Your task to perform on an android device: Open Yahoo.com Image 0: 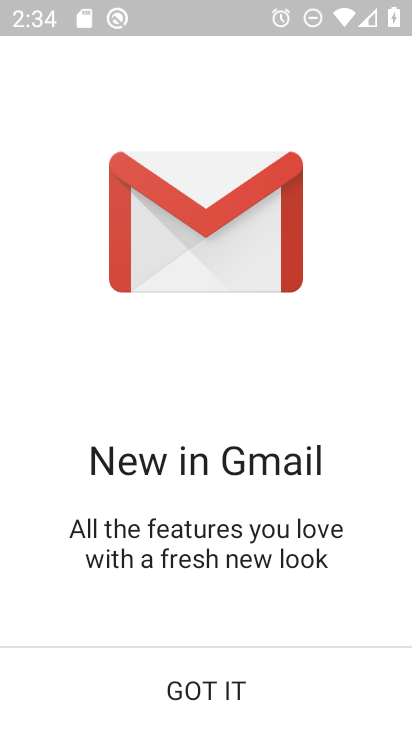
Step 0: press home button
Your task to perform on an android device: Open Yahoo.com Image 1: 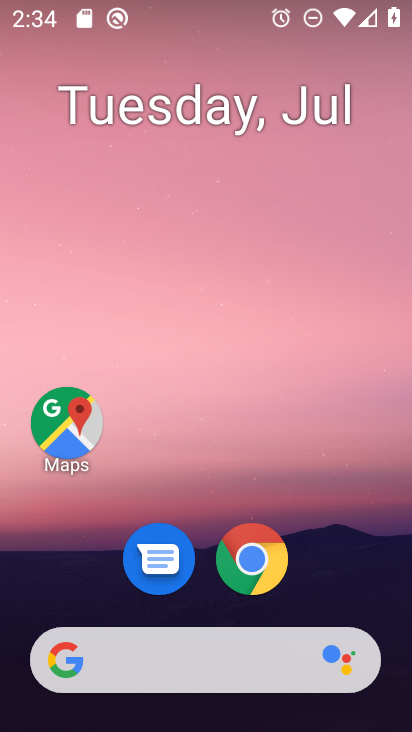
Step 1: drag from (373, 580) to (395, 65)
Your task to perform on an android device: Open Yahoo.com Image 2: 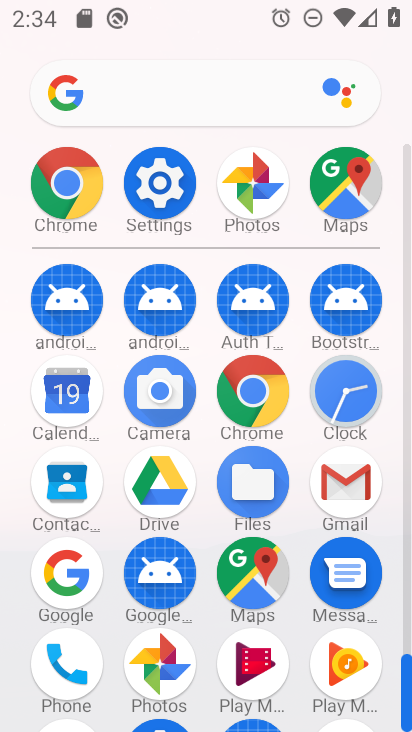
Step 2: click (270, 390)
Your task to perform on an android device: Open Yahoo.com Image 3: 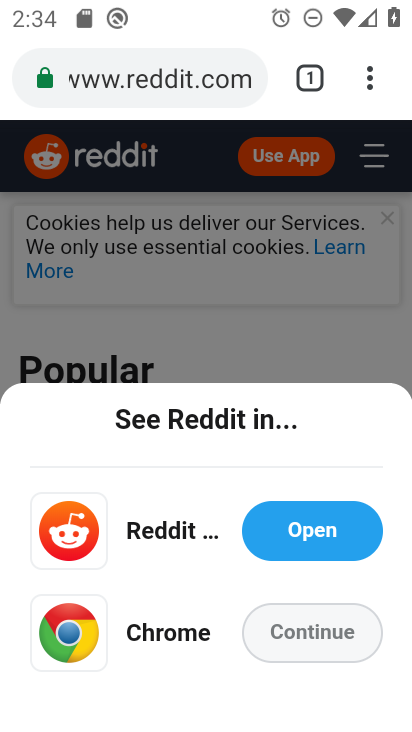
Step 3: click (210, 82)
Your task to perform on an android device: Open Yahoo.com Image 4: 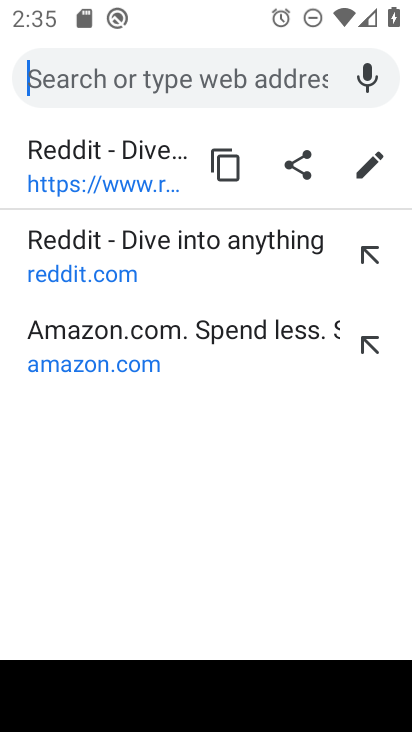
Step 4: type "yahoo.com"
Your task to perform on an android device: Open Yahoo.com Image 5: 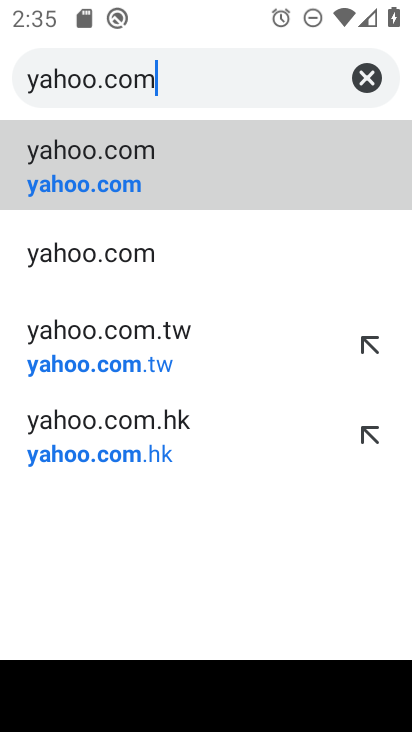
Step 5: click (155, 166)
Your task to perform on an android device: Open Yahoo.com Image 6: 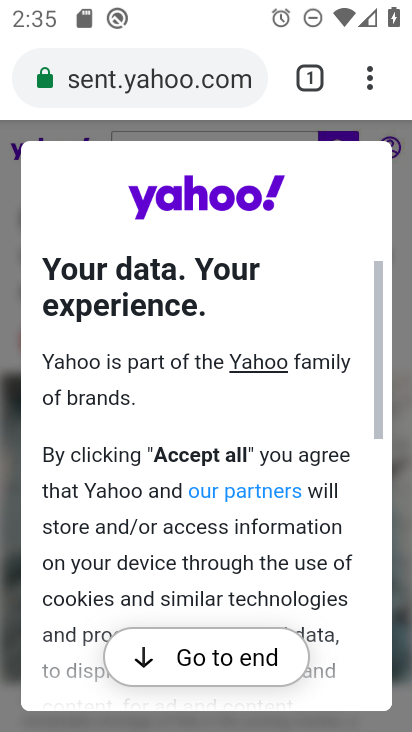
Step 6: task complete